Your task to perform on an android device: Go to wifi settings Image 0: 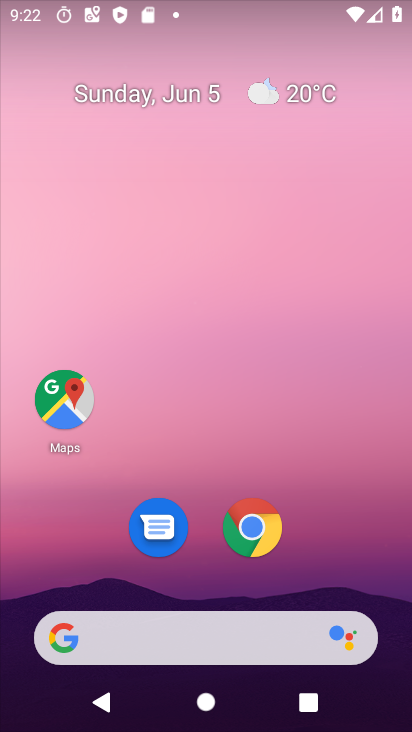
Step 0: drag from (349, 447) to (302, 107)
Your task to perform on an android device: Go to wifi settings Image 1: 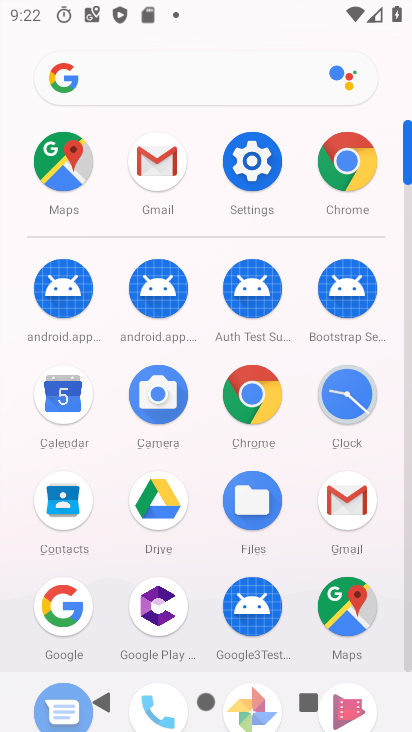
Step 1: click (240, 151)
Your task to perform on an android device: Go to wifi settings Image 2: 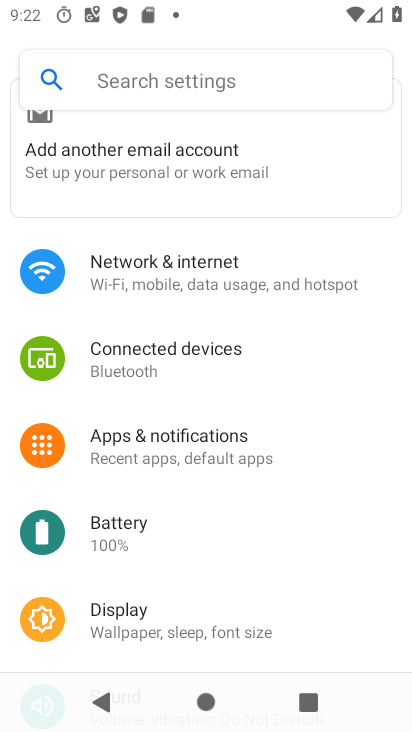
Step 2: click (99, 310)
Your task to perform on an android device: Go to wifi settings Image 3: 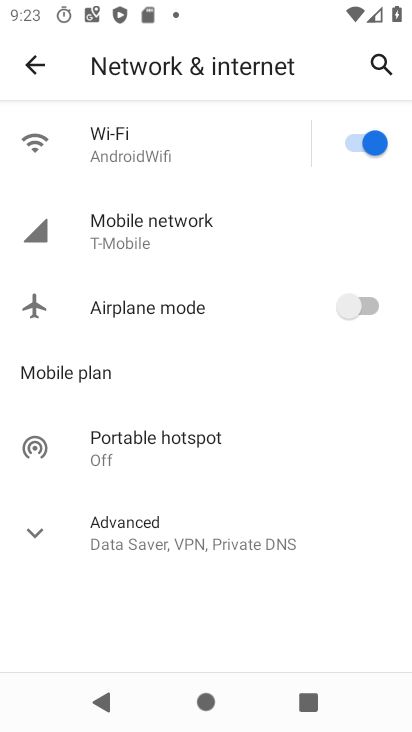
Step 3: click (148, 165)
Your task to perform on an android device: Go to wifi settings Image 4: 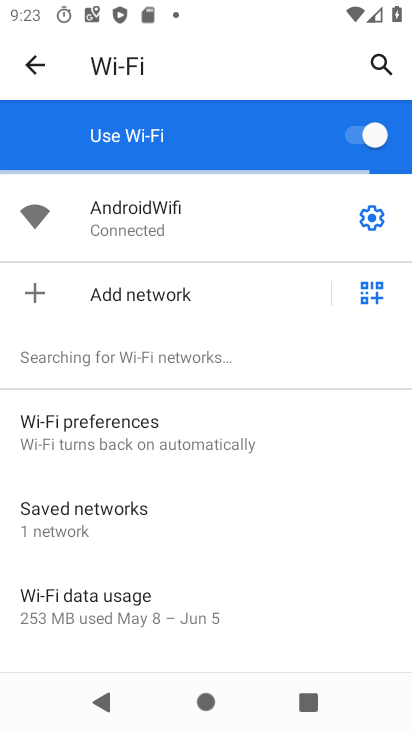
Step 4: task complete